Your task to perform on an android device: Go to privacy settings Image 0: 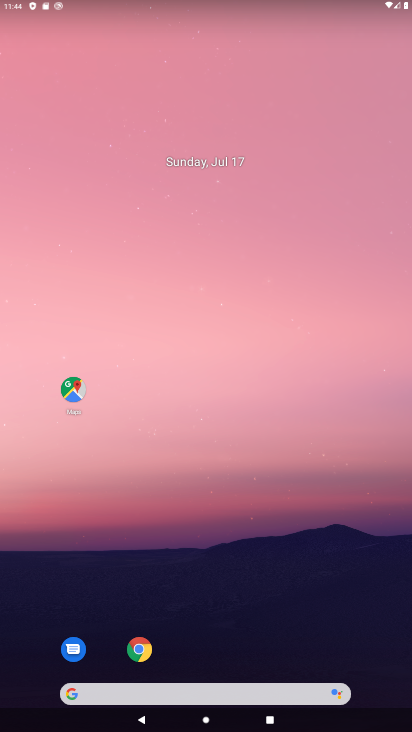
Step 0: drag from (25, 682) to (222, 10)
Your task to perform on an android device: Go to privacy settings Image 1: 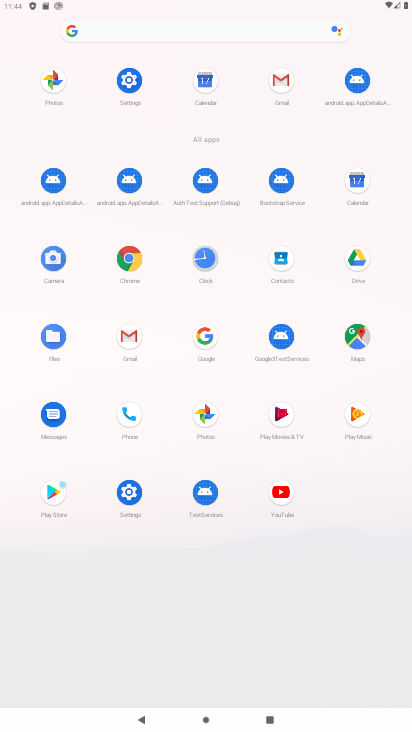
Step 1: click (140, 493)
Your task to perform on an android device: Go to privacy settings Image 2: 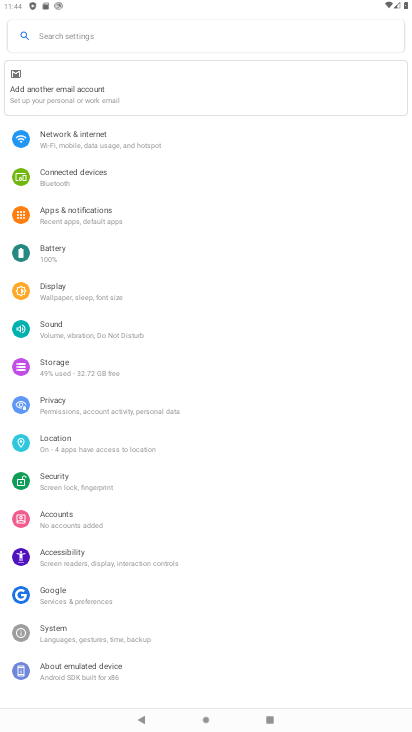
Step 2: click (65, 398)
Your task to perform on an android device: Go to privacy settings Image 3: 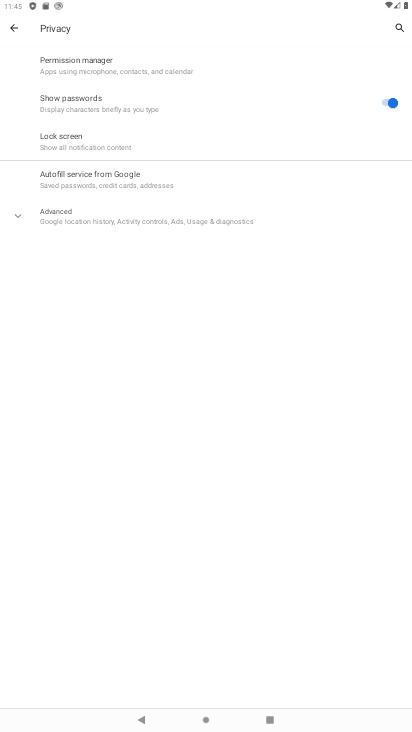
Step 3: task complete